Your task to perform on an android device: Search for vegetarian restaurants on Maps Image 0: 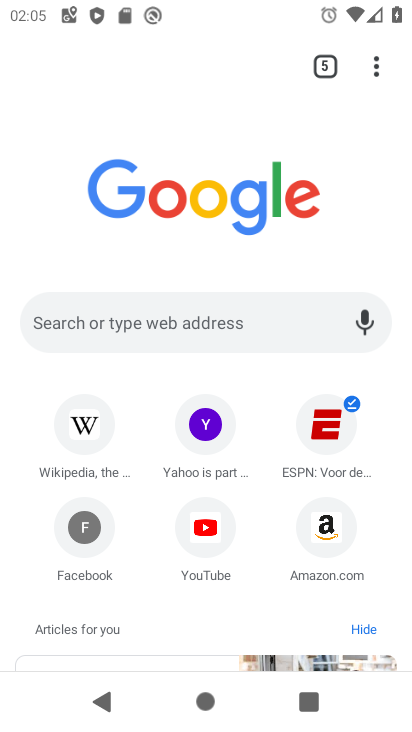
Step 0: press home button
Your task to perform on an android device: Search for vegetarian restaurants on Maps Image 1: 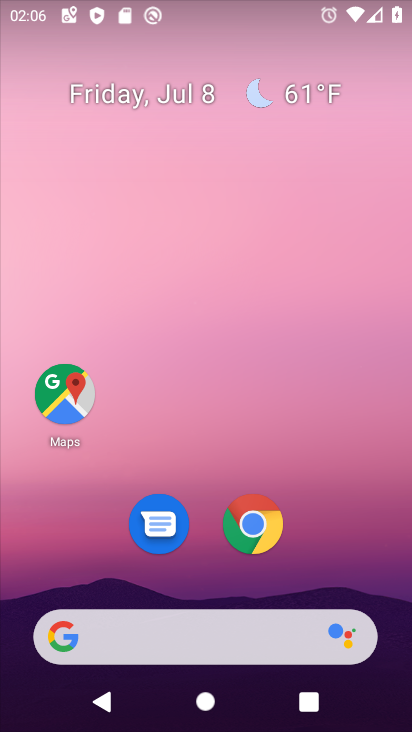
Step 1: click (70, 392)
Your task to perform on an android device: Search for vegetarian restaurants on Maps Image 2: 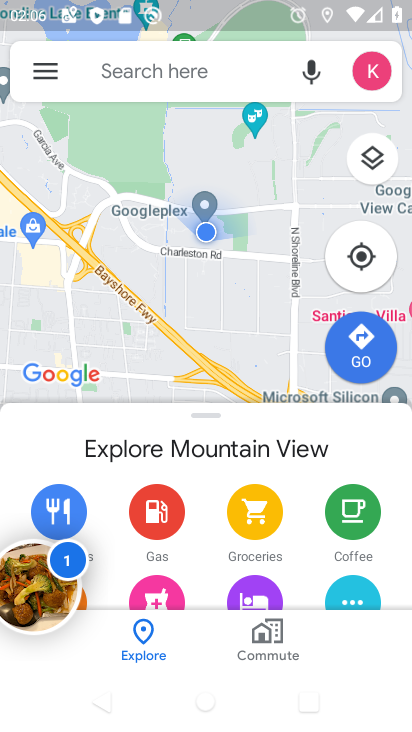
Step 2: click (150, 72)
Your task to perform on an android device: Search for vegetarian restaurants on Maps Image 3: 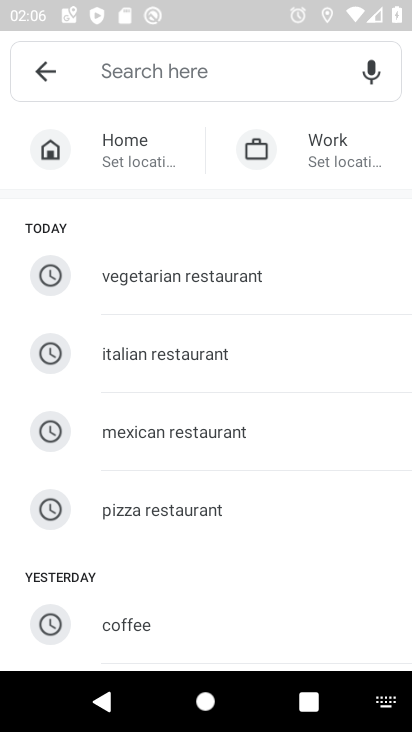
Step 3: click (184, 270)
Your task to perform on an android device: Search for vegetarian restaurants on Maps Image 4: 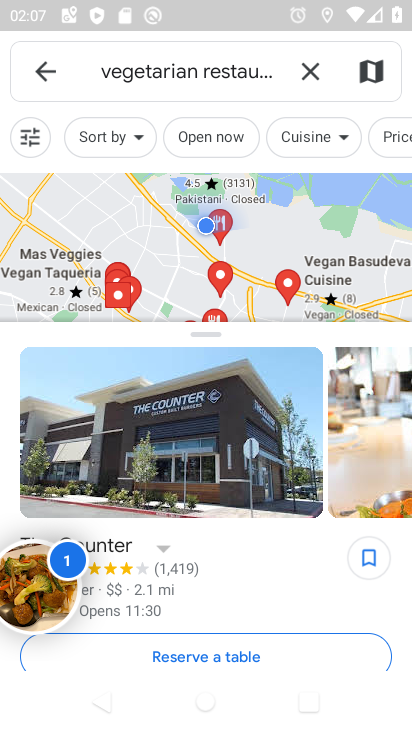
Step 4: task complete